Your task to perform on an android device: Go to location settings Image 0: 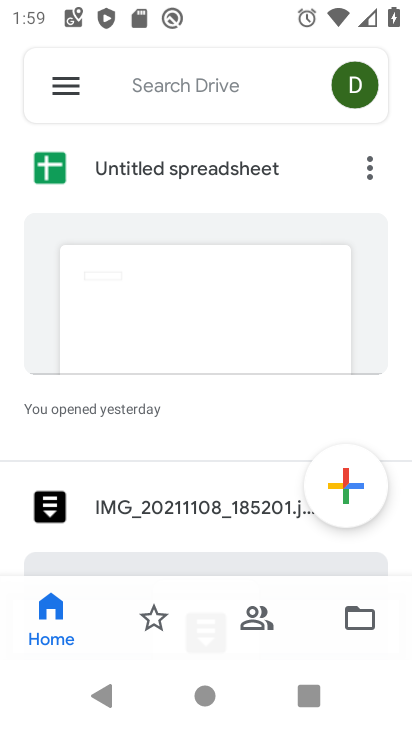
Step 0: press home button
Your task to perform on an android device: Go to location settings Image 1: 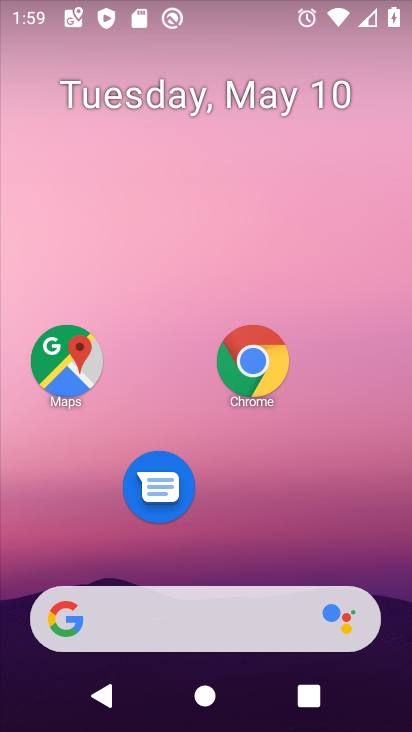
Step 1: drag from (278, 508) to (224, 12)
Your task to perform on an android device: Go to location settings Image 2: 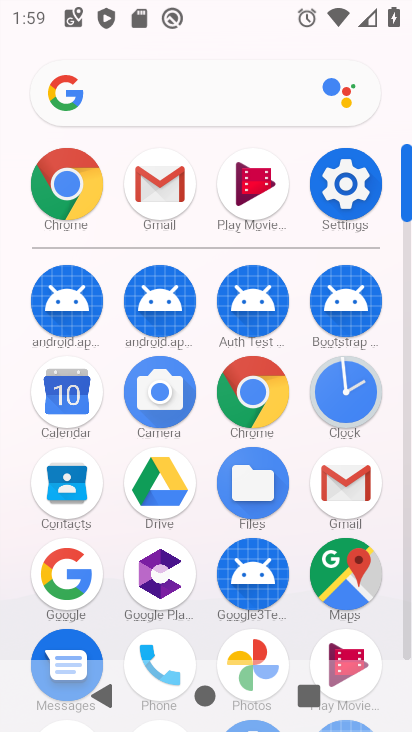
Step 2: click (324, 195)
Your task to perform on an android device: Go to location settings Image 3: 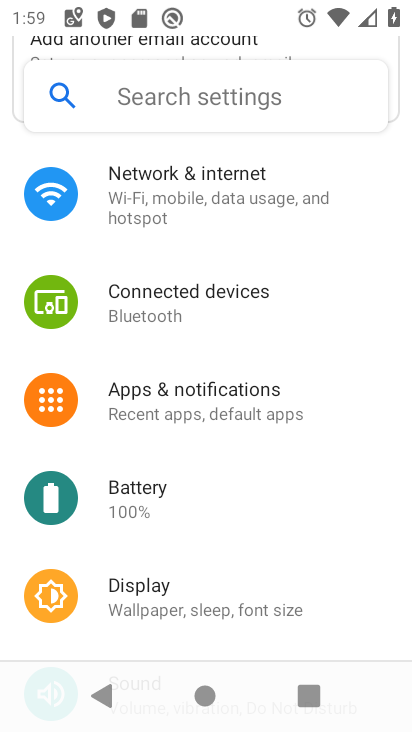
Step 3: click (200, 415)
Your task to perform on an android device: Go to location settings Image 4: 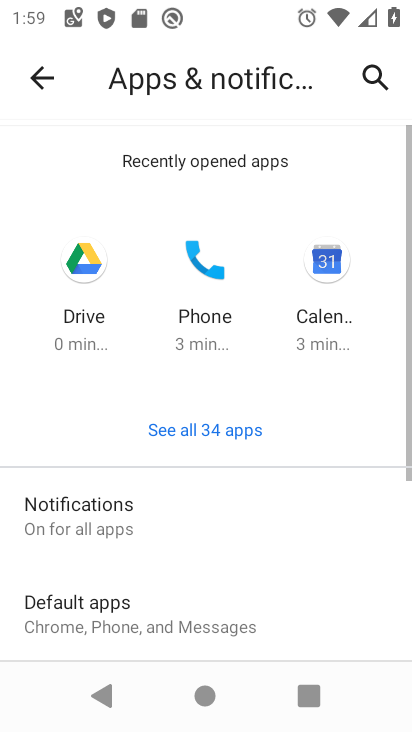
Step 4: task complete